Your task to perform on an android device: Open Reddit.com Image 0: 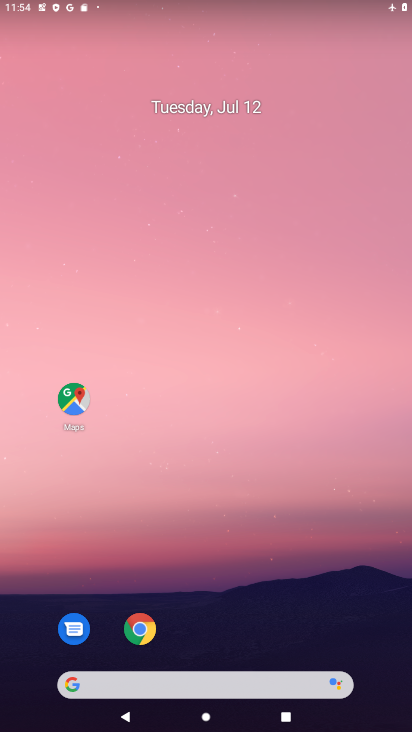
Step 0: drag from (219, 613) to (249, 270)
Your task to perform on an android device: Open Reddit.com Image 1: 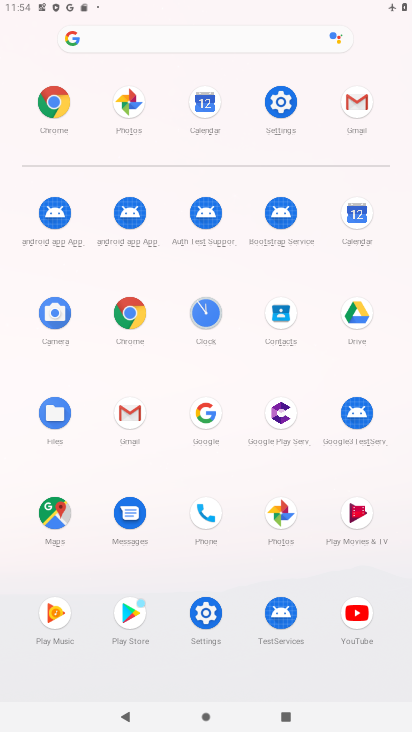
Step 1: click (50, 92)
Your task to perform on an android device: Open Reddit.com Image 2: 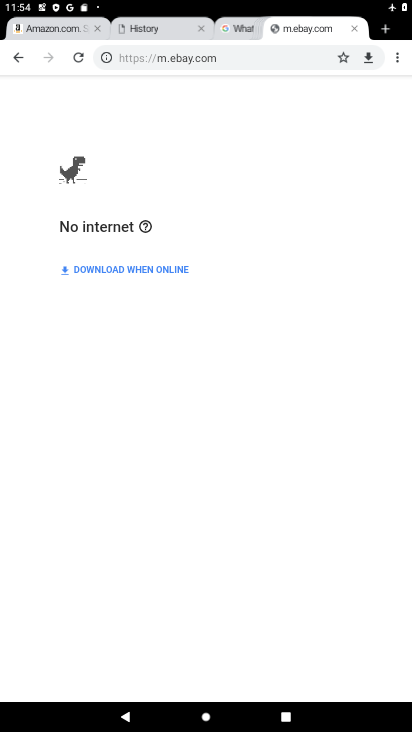
Step 2: click (386, 24)
Your task to perform on an android device: Open Reddit.com Image 3: 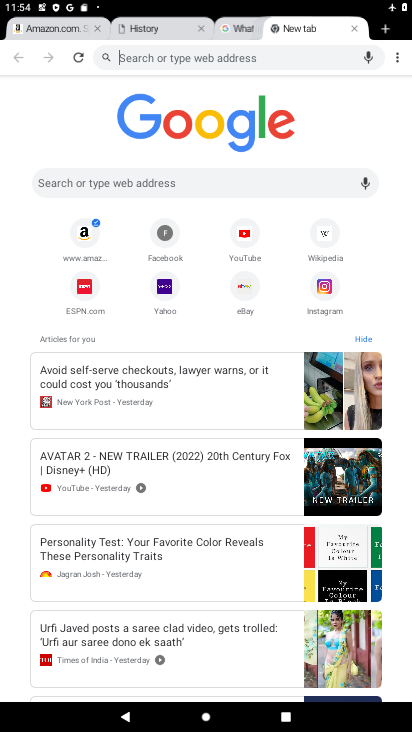
Step 3: click (138, 178)
Your task to perform on an android device: Open Reddit.com Image 4: 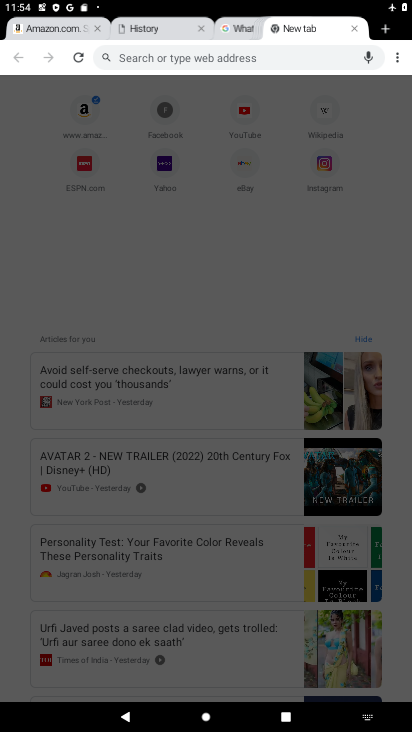
Step 4: type " Reddit.com "
Your task to perform on an android device: Open Reddit.com Image 5: 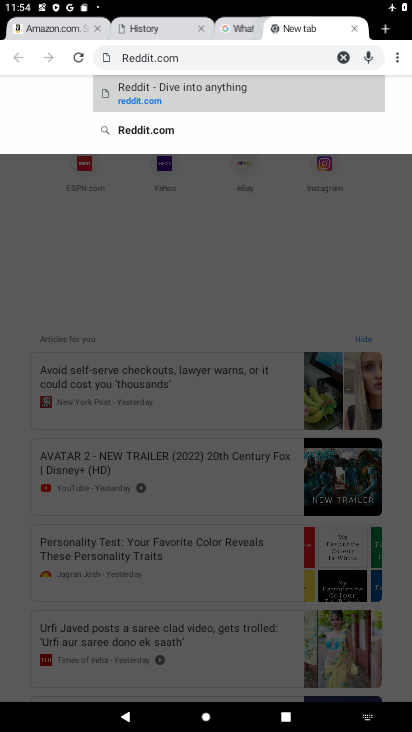
Step 5: click (137, 120)
Your task to perform on an android device: Open Reddit.com Image 6: 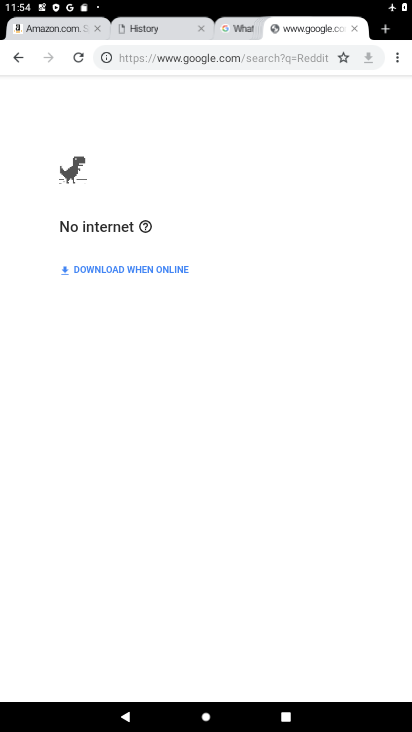
Step 6: task complete